Your task to perform on an android device: check storage Image 0: 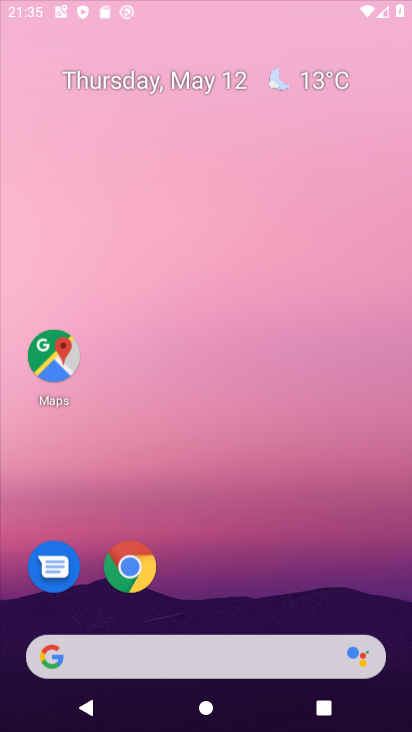
Step 0: press home button
Your task to perform on an android device: check storage Image 1: 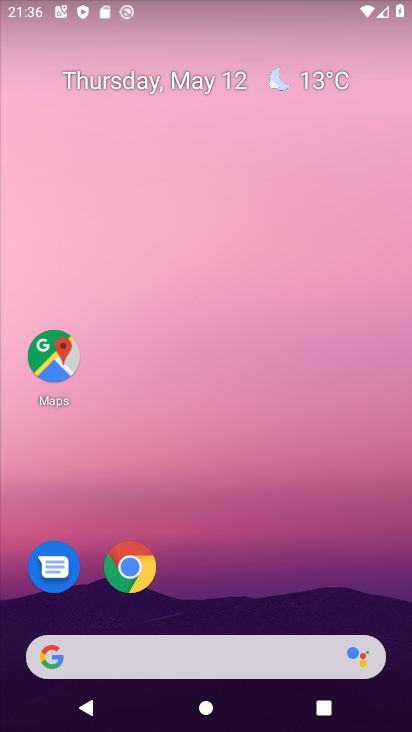
Step 1: drag from (194, 601) to (225, 133)
Your task to perform on an android device: check storage Image 2: 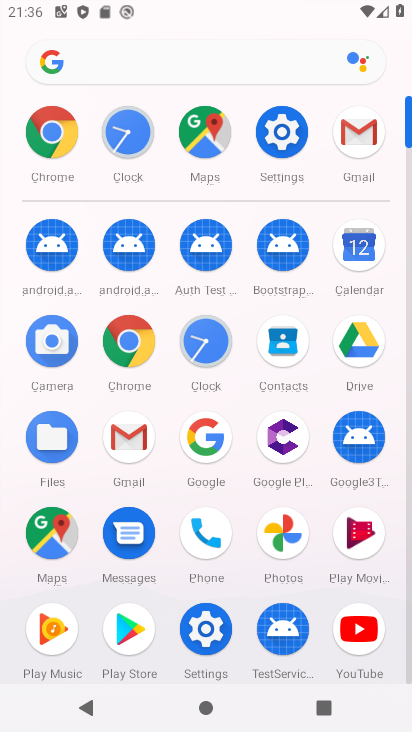
Step 2: click (202, 625)
Your task to perform on an android device: check storage Image 3: 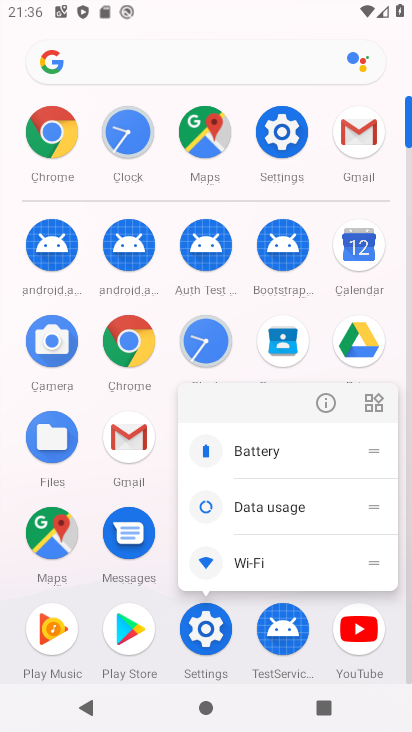
Step 3: click (199, 632)
Your task to perform on an android device: check storage Image 4: 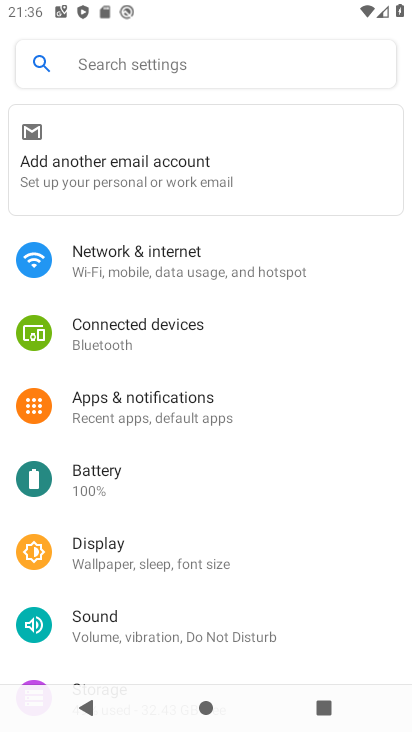
Step 4: drag from (152, 613) to (166, 244)
Your task to perform on an android device: check storage Image 5: 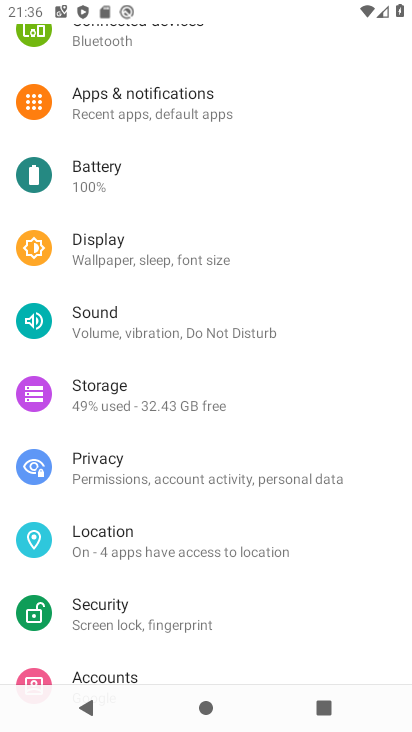
Step 5: click (126, 386)
Your task to perform on an android device: check storage Image 6: 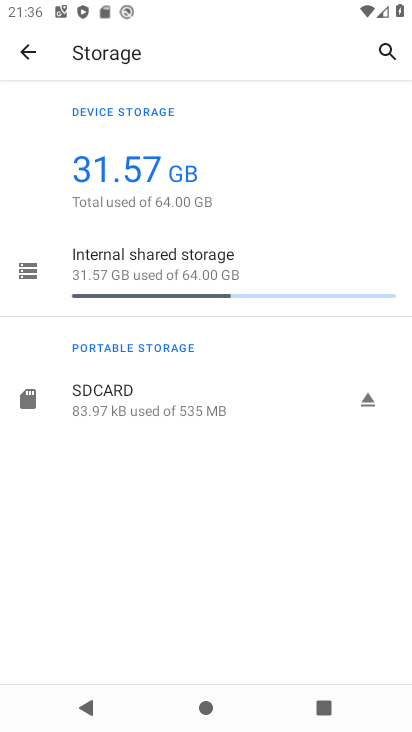
Step 6: task complete